Your task to perform on an android device: change the upload size in google photos Image 0: 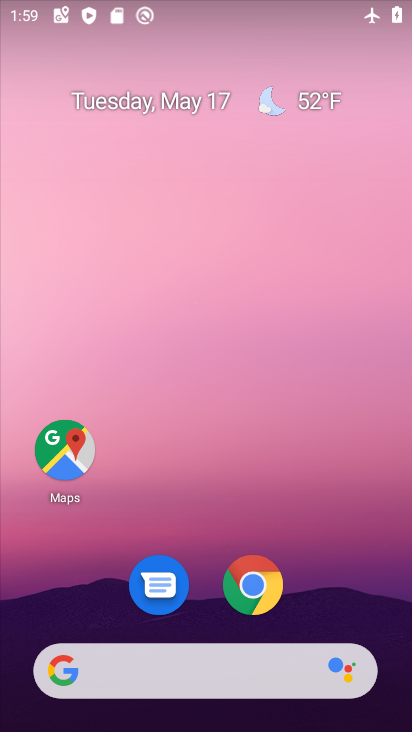
Step 0: drag from (346, 585) to (316, 87)
Your task to perform on an android device: change the upload size in google photos Image 1: 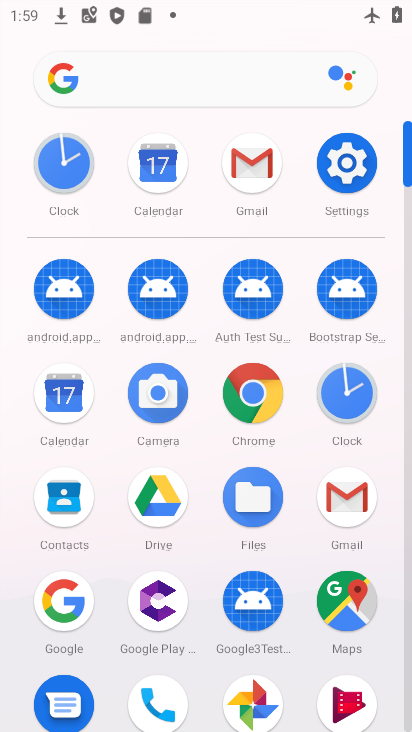
Step 1: click (259, 678)
Your task to perform on an android device: change the upload size in google photos Image 2: 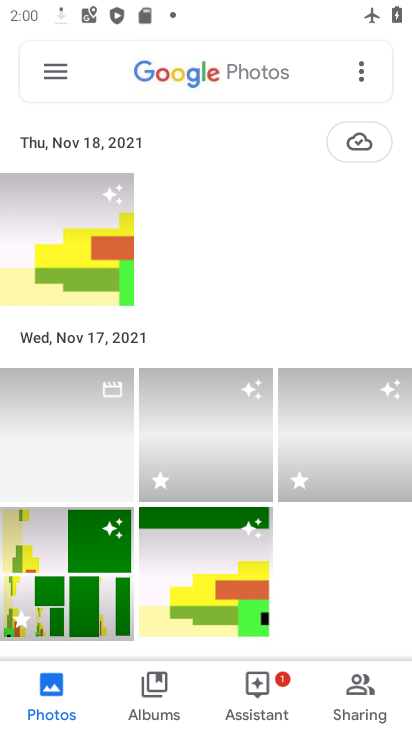
Step 2: click (50, 76)
Your task to perform on an android device: change the upload size in google photos Image 3: 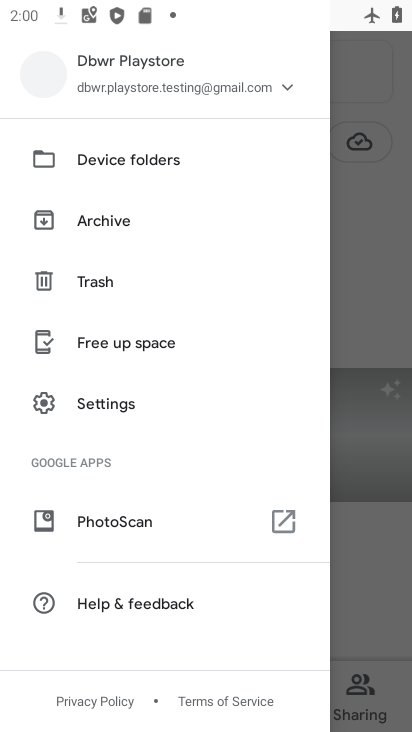
Step 3: click (99, 407)
Your task to perform on an android device: change the upload size in google photos Image 4: 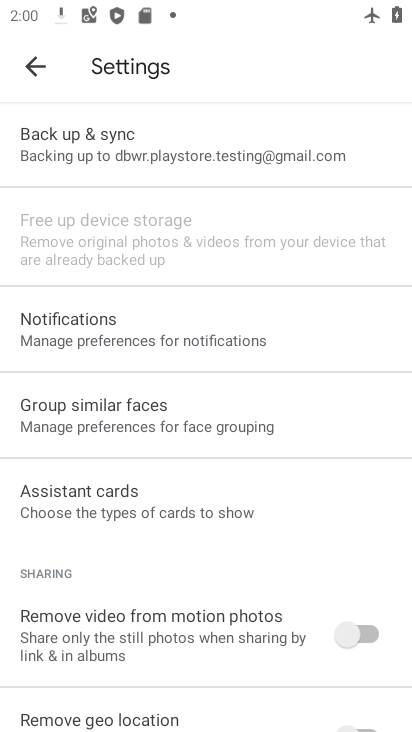
Step 4: click (159, 134)
Your task to perform on an android device: change the upload size in google photos Image 5: 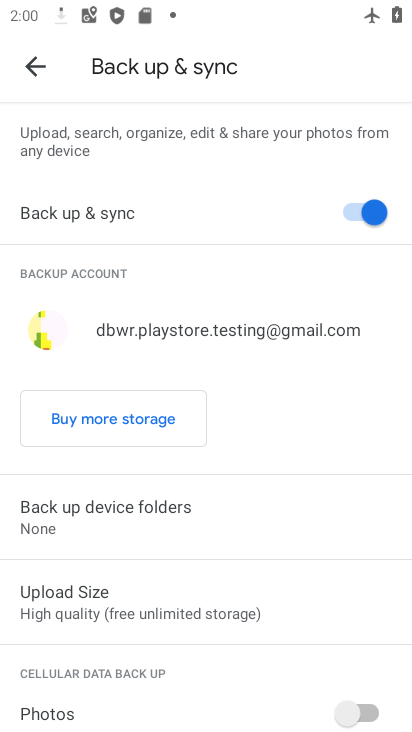
Step 5: click (144, 608)
Your task to perform on an android device: change the upload size in google photos Image 6: 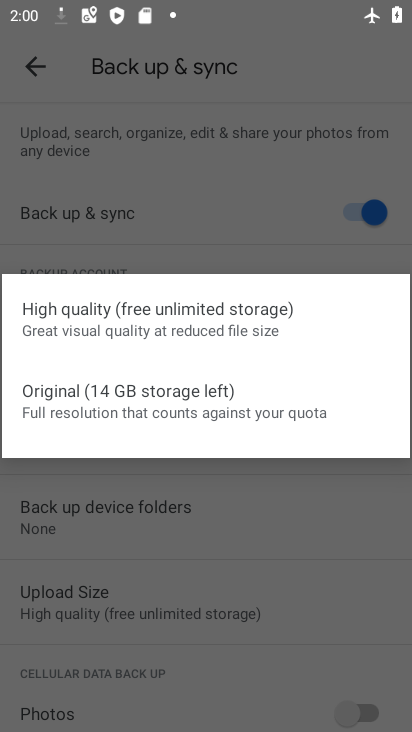
Step 6: click (178, 386)
Your task to perform on an android device: change the upload size in google photos Image 7: 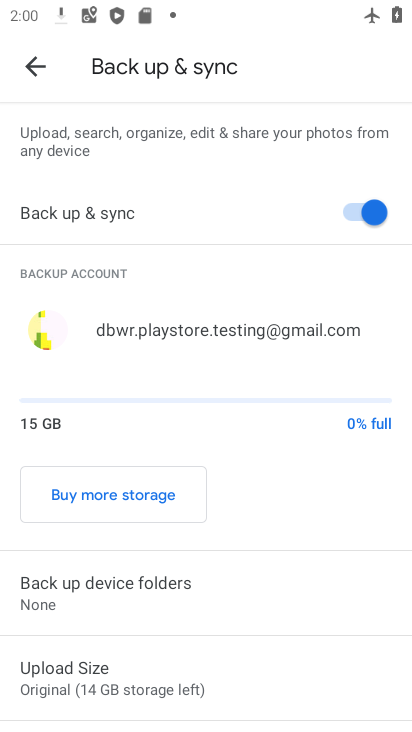
Step 7: task complete